Your task to perform on an android device: turn on location history Image 0: 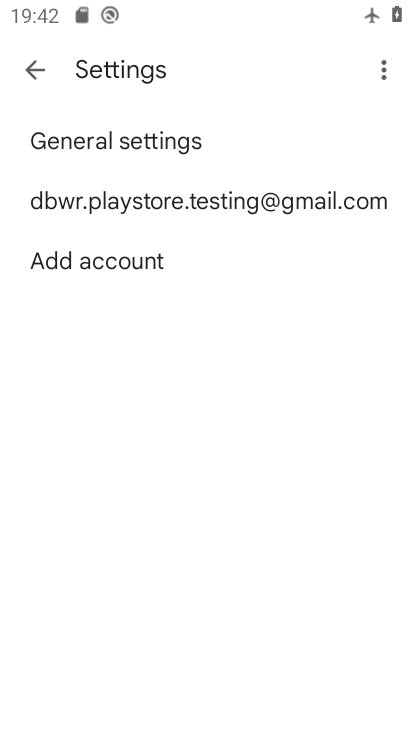
Step 0: press home button
Your task to perform on an android device: turn on location history Image 1: 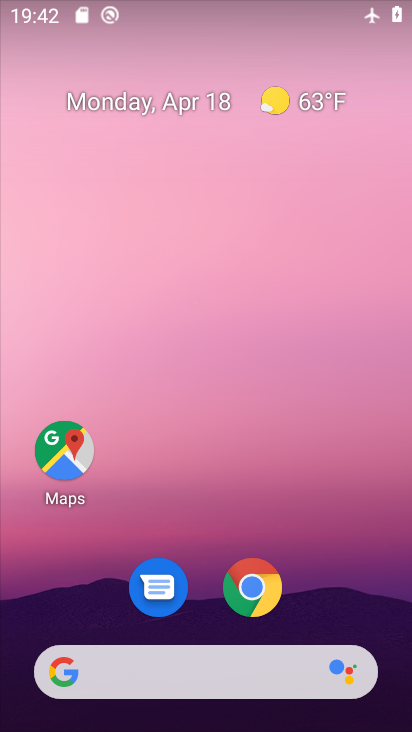
Step 1: drag from (355, 573) to (329, 0)
Your task to perform on an android device: turn on location history Image 2: 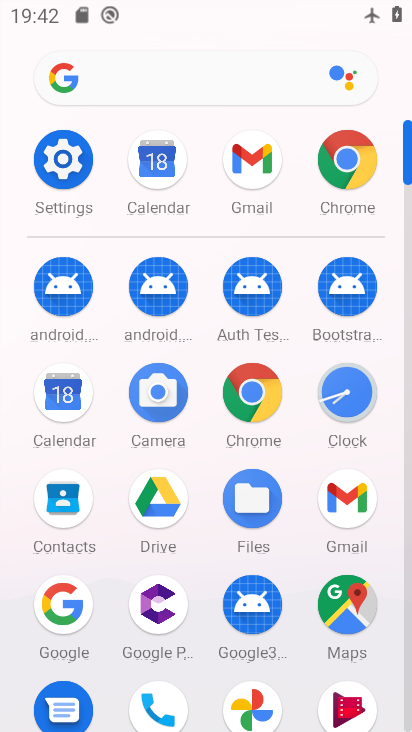
Step 2: click (80, 211)
Your task to perform on an android device: turn on location history Image 3: 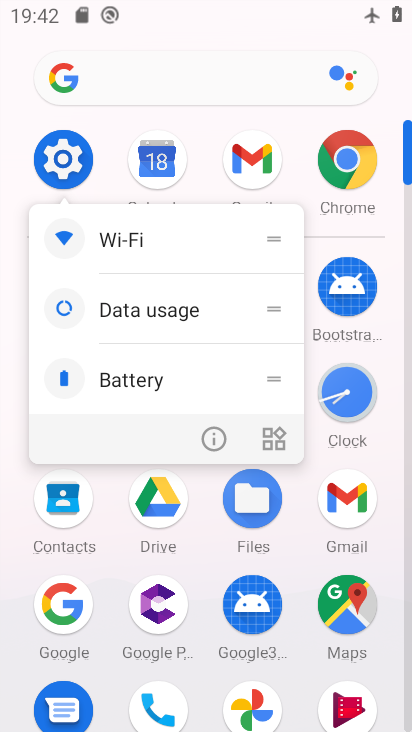
Step 3: click (58, 160)
Your task to perform on an android device: turn on location history Image 4: 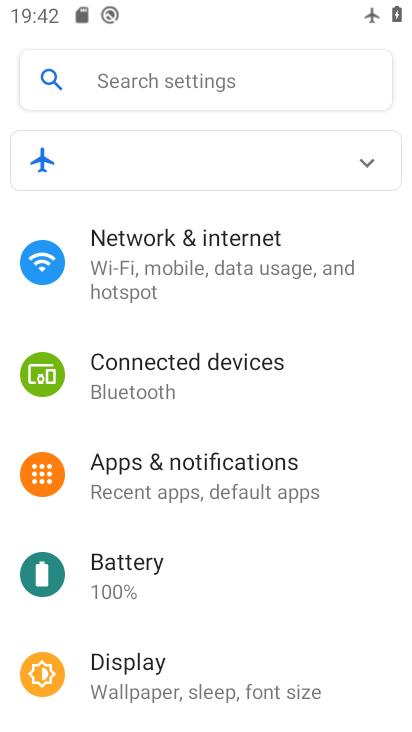
Step 4: drag from (247, 610) to (249, 274)
Your task to perform on an android device: turn on location history Image 5: 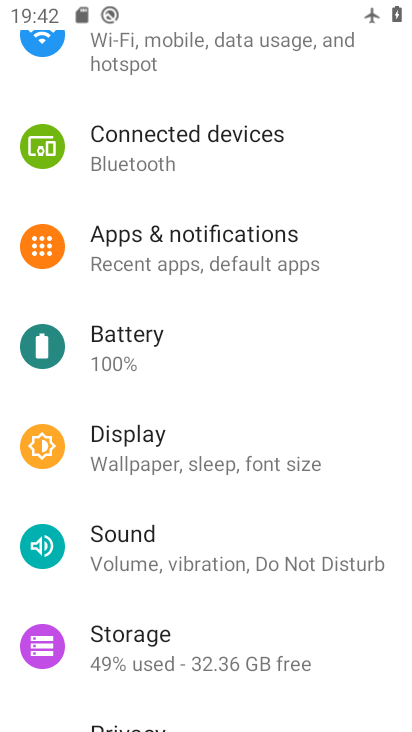
Step 5: drag from (281, 614) to (294, 464)
Your task to perform on an android device: turn on location history Image 6: 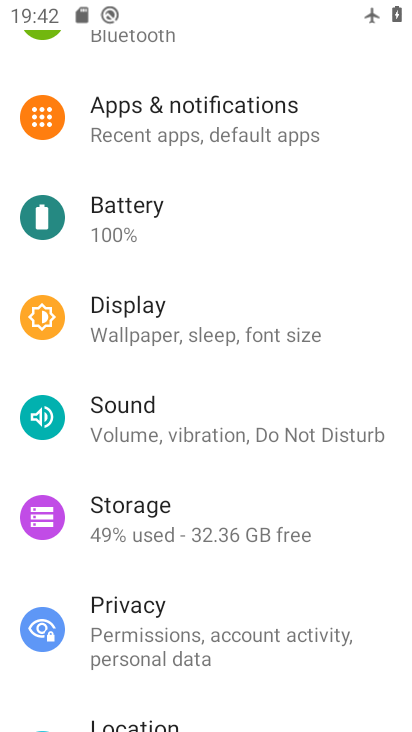
Step 6: drag from (234, 569) to (278, 308)
Your task to perform on an android device: turn on location history Image 7: 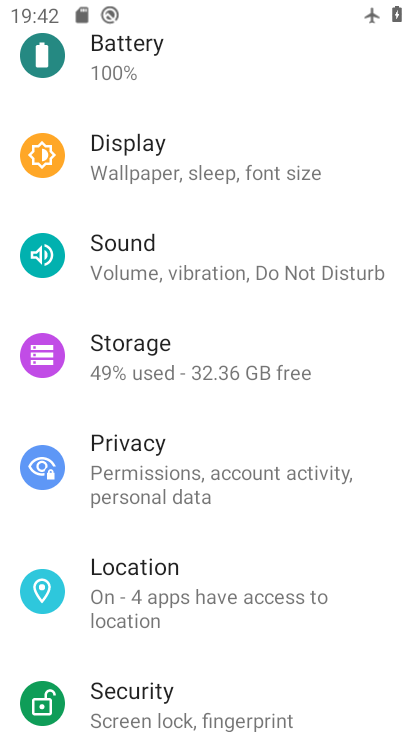
Step 7: click (204, 557)
Your task to perform on an android device: turn on location history Image 8: 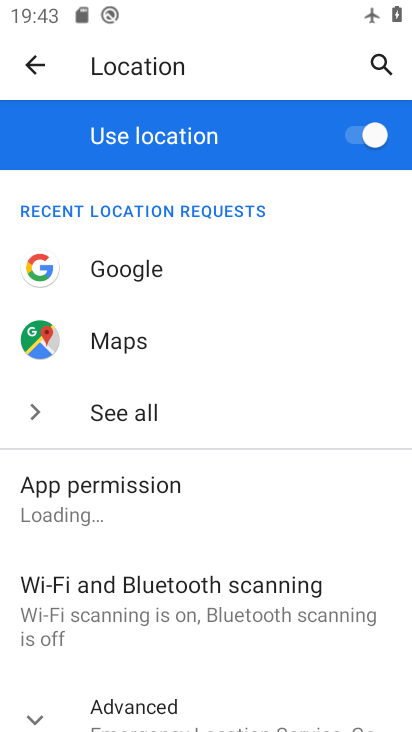
Step 8: drag from (224, 398) to (301, 169)
Your task to perform on an android device: turn on location history Image 9: 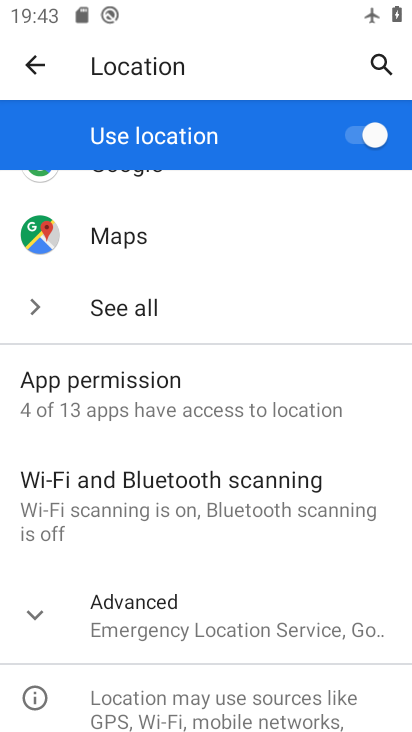
Step 9: click (124, 597)
Your task to perform on an android device: turn on location history Image 10: 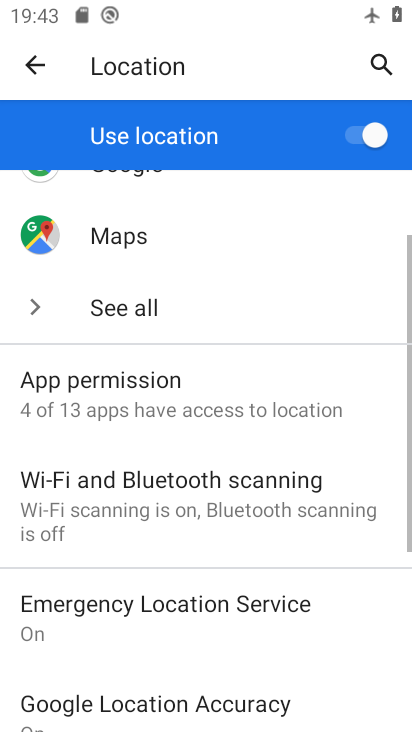
Step 10: task complete